Your task to perform on an android device: When is my next appointment? Image 0: 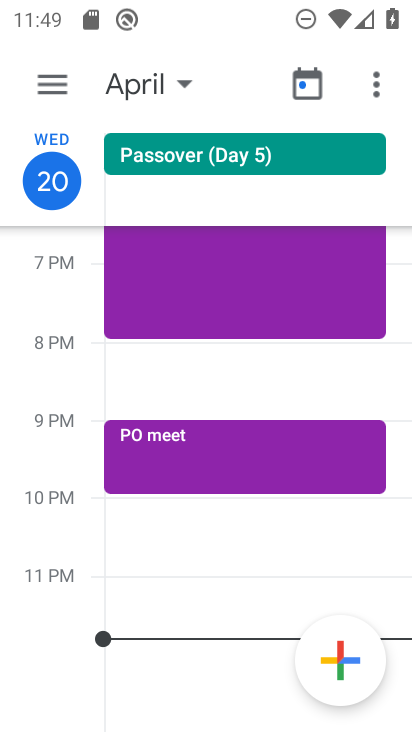
Step 0: press home button
Your task to perform on an android device: When is my next appointment? Image 1: 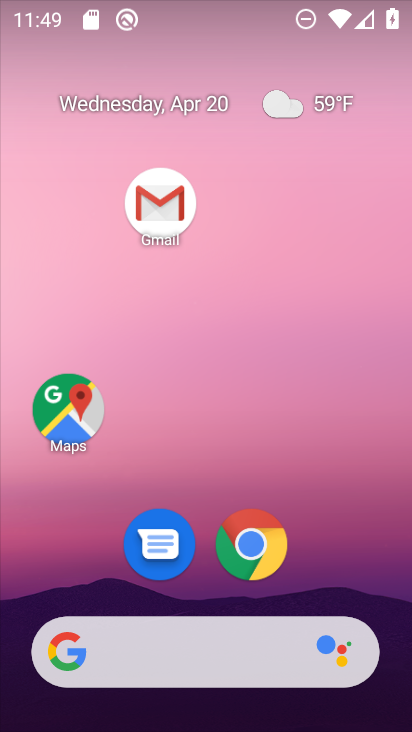
Step 1: drag from (209, 536) to (285, 167)
Your task to perform on an android device: When is my next appointment? Image 2: 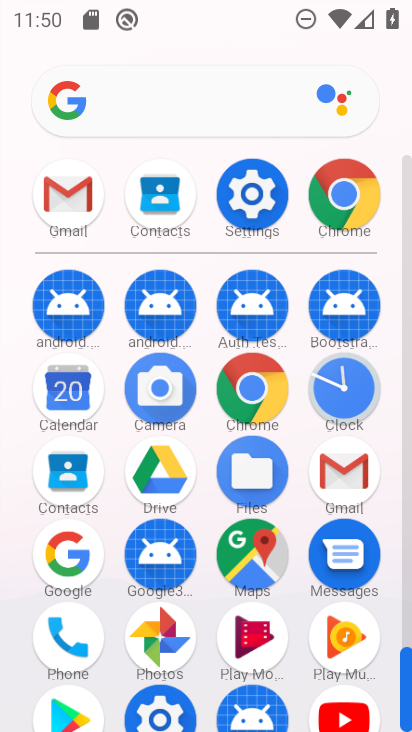
Step 2: click (65, 391)
Your task to perform on an android device: When is my next appointment? Image 3: 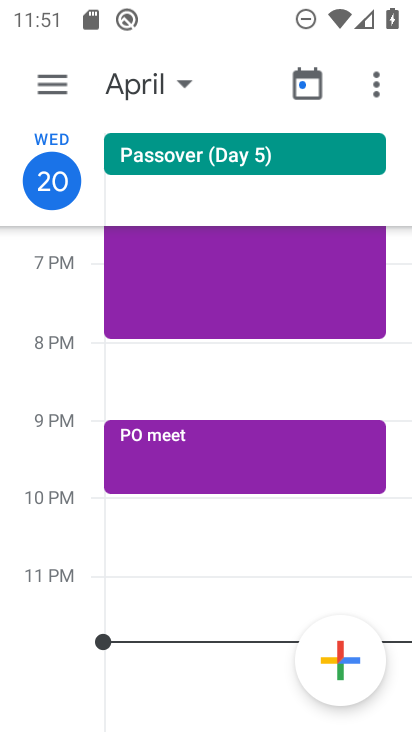
Step 3: click (51, 90)
Your task to perform on an android device: When is my next appointment? Image 4: 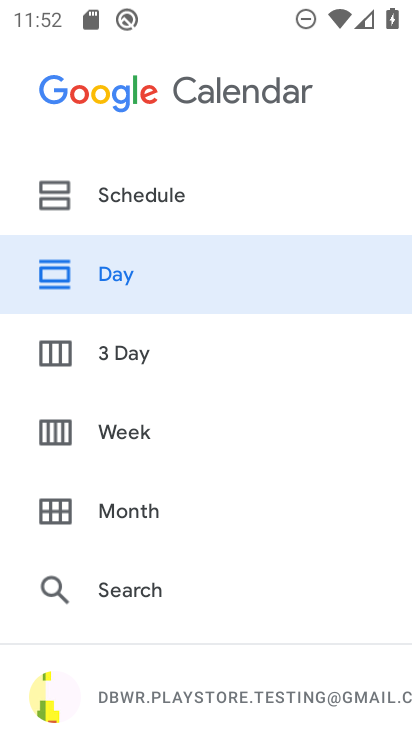
Step 4: click (157, 278)
Your task to perform on an android device: When is my next appointment? Image 5: 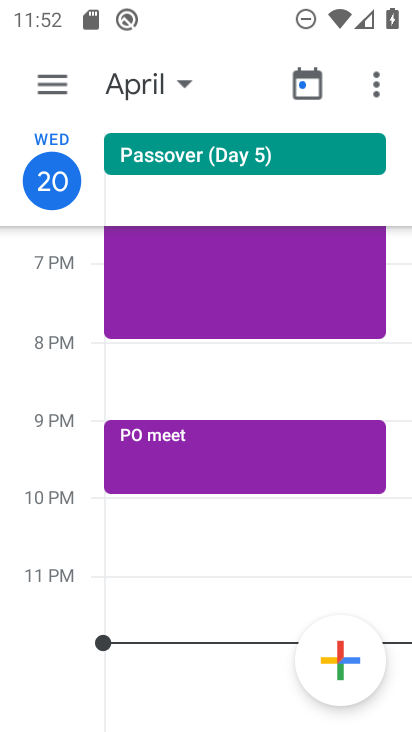
Step 5: task complete